Your task to perform on an android device: toggle airplane mode Image 0: 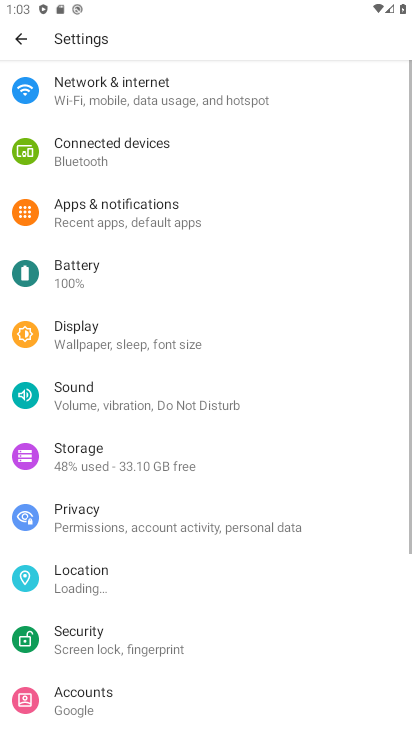
Step 0: press home button
Your task to perform on an android device: toggle airplane mode Image 1: 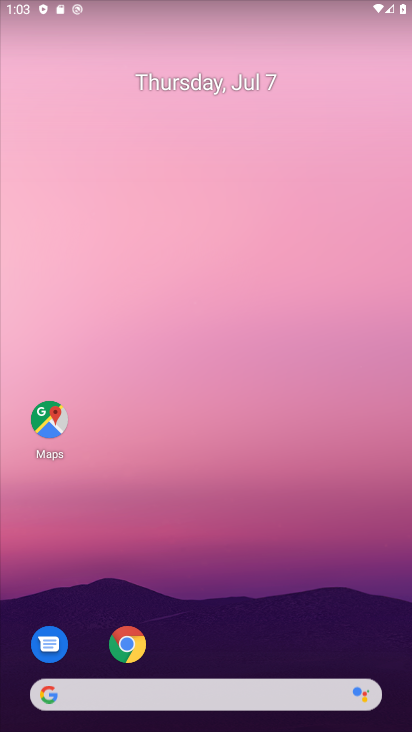
Step 1: drag from (256, 625) to (235, 111)
Your task to perform on an android device: toggle airplane mode Image 2: 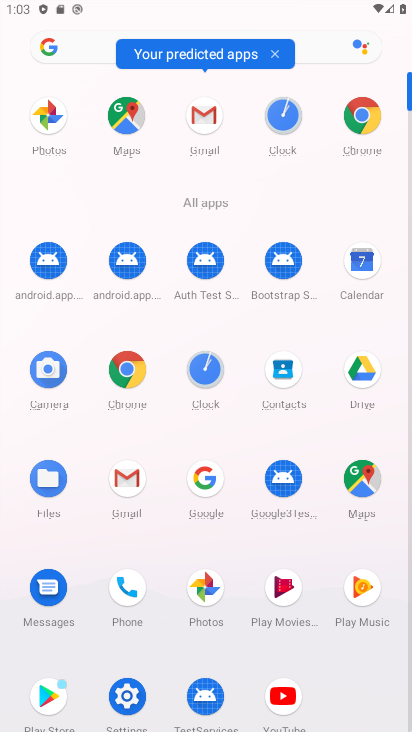
Step 2: drag from (174, 569) to (142, 407)
Your task to perform on an android device: toggle airplane mode Image 3: 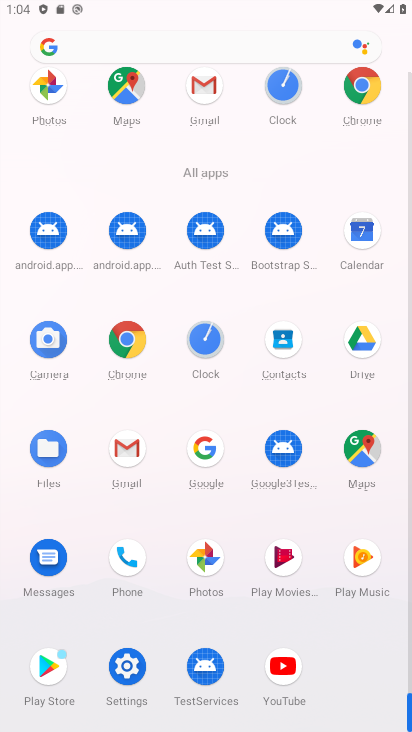
Step 3: click (126, 666)
Your task to perform on an android device: toggle airplane mode Image 4: 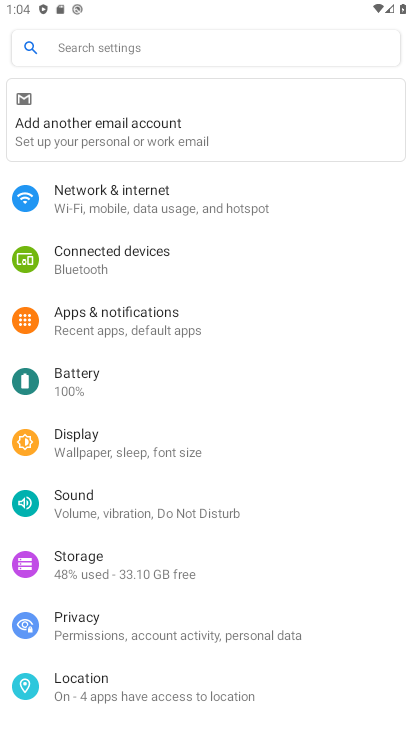
Step 4: click (164, 204)
Your task to perform on an android device: toggle airplane mode Image 5: 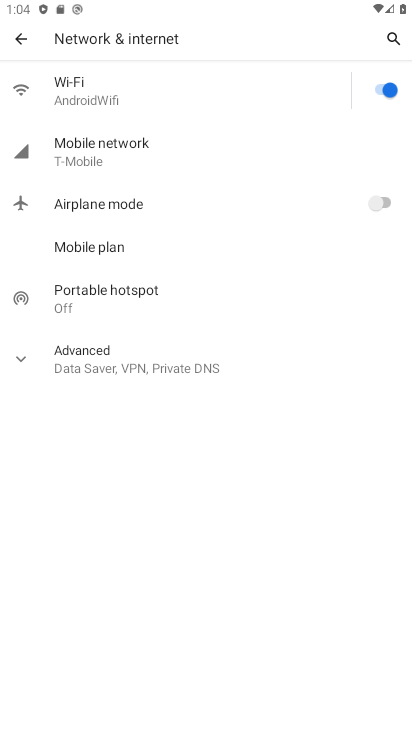
Step 5: click (378, 202)
Your task to perform on an android device: toggle airplane mode Image 6: 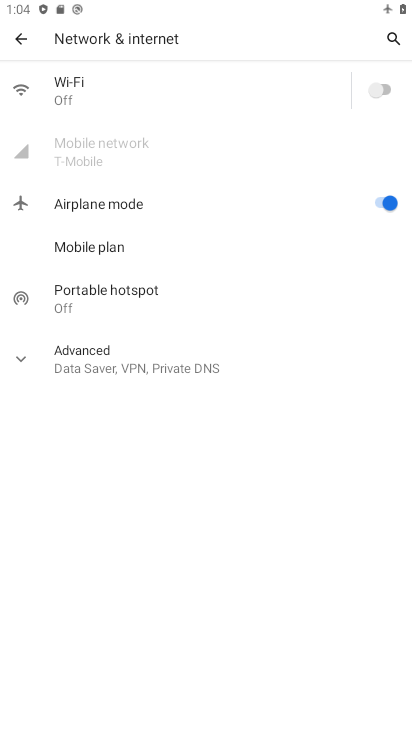
Step 6: task complete